Your task to perform on an android device: check out phone information Image 0: 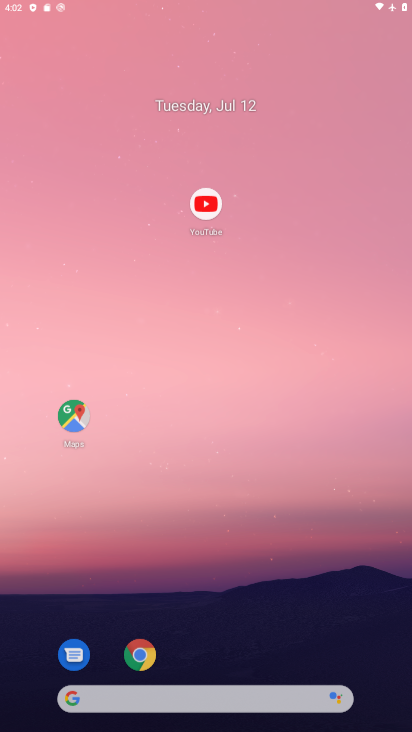
Step 0: click (146, 82)
Your task to perform on an android device: check out phone information Image 1: 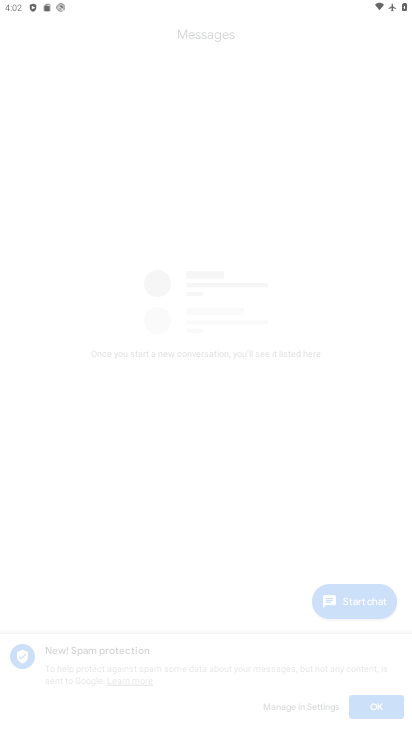
Step 1: drag from (190, 534) to (169, 131)
Your task to perform on an android device: check out phone information Image 2: 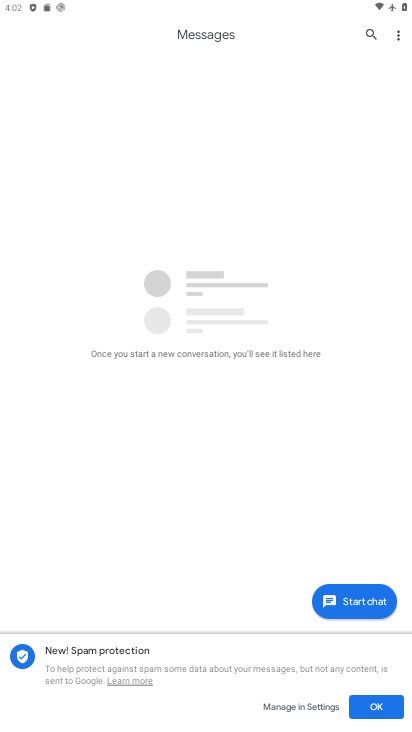
Step 2: press back button
Your task to perform on an android device: check out phone information Image 3: 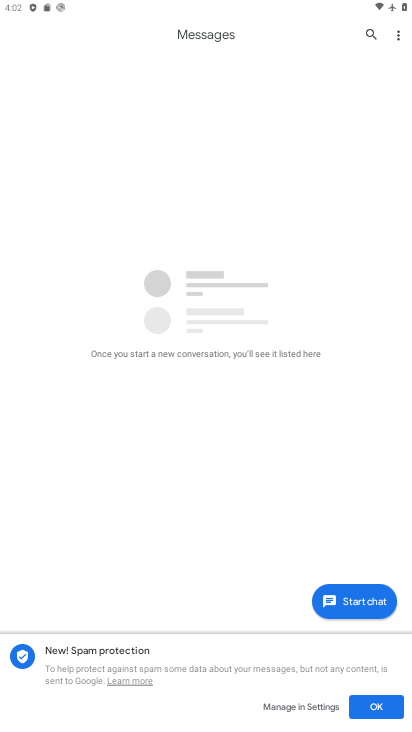
Step 3: press back button
Your task to perform on an android device: check out phone information Image 4: 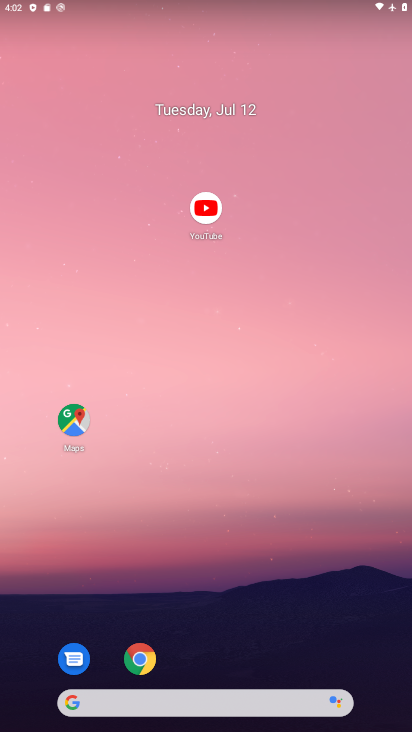
Step 4: drag from (255, 663) to (203, 69)
Your task to perform on an android device: check out phone information Image 5: 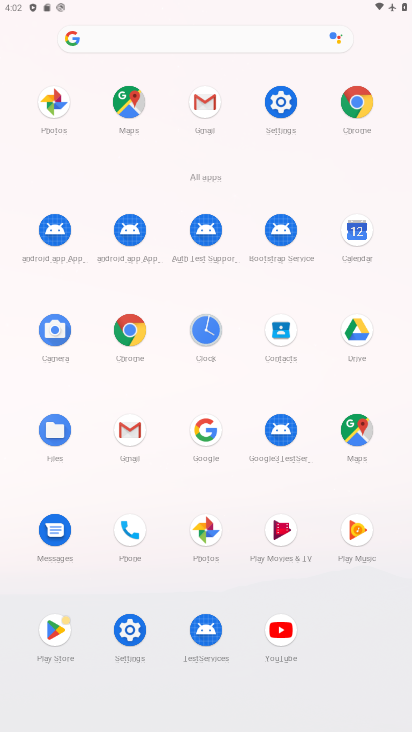
Step 5: click (288, 102)
Your task to perform on an android device: check out phone information Image 6: 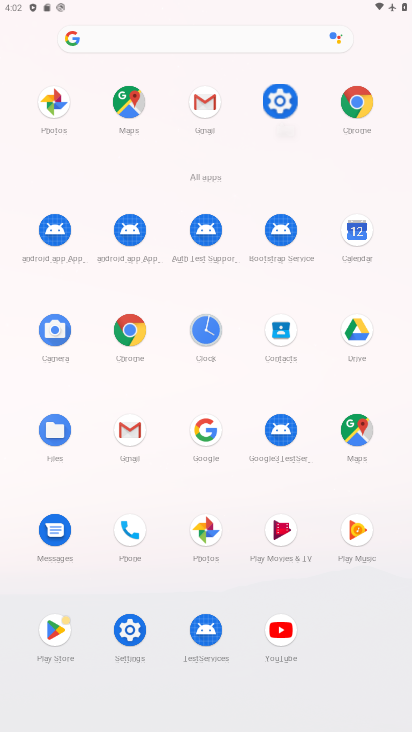
Step 6: click (288, 96)
Your task to perform on an android device: check out phone information Image 7: 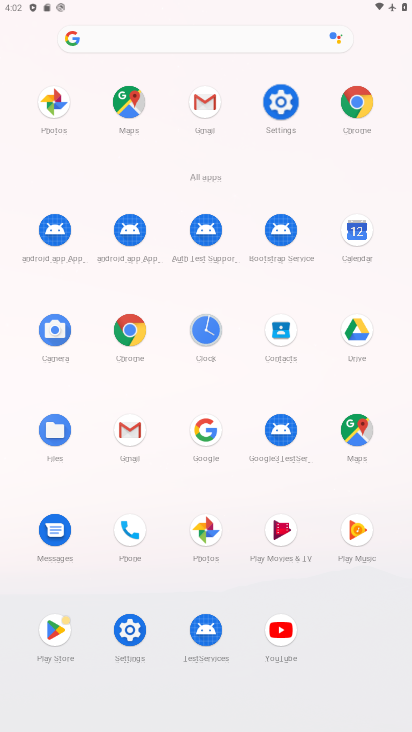
Step 7: click (288, 96)
Your task to perform on an android device: check out phone information Image 8: 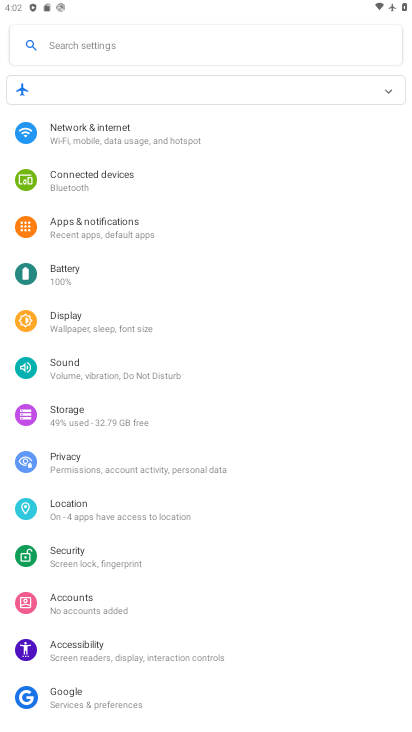
Step 8: click (292, 100)
Your task to perform on an android device: check out phone information Image 9: 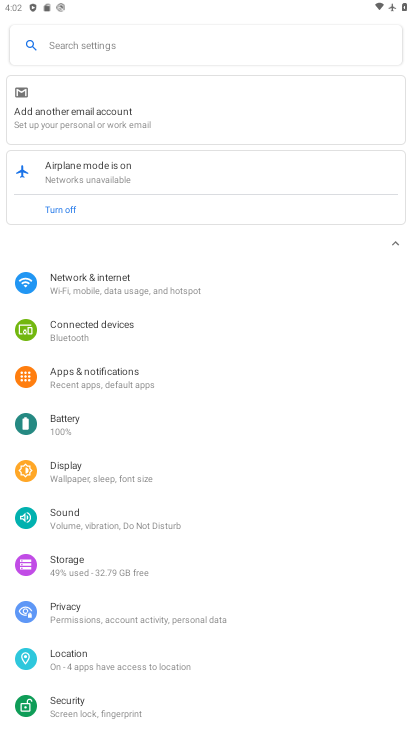
Step 9: click (81, 646)
Your task to perform on an android device: check out phone information Image 10: 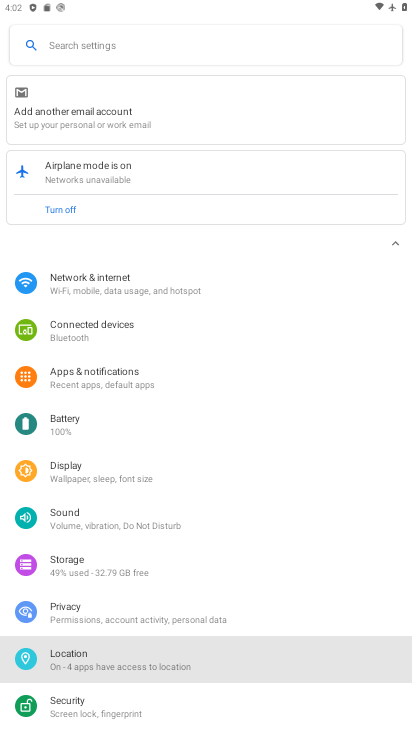
Step 10: click (81, 646)
Your task to perform on an android device: check out phone information Image 11: 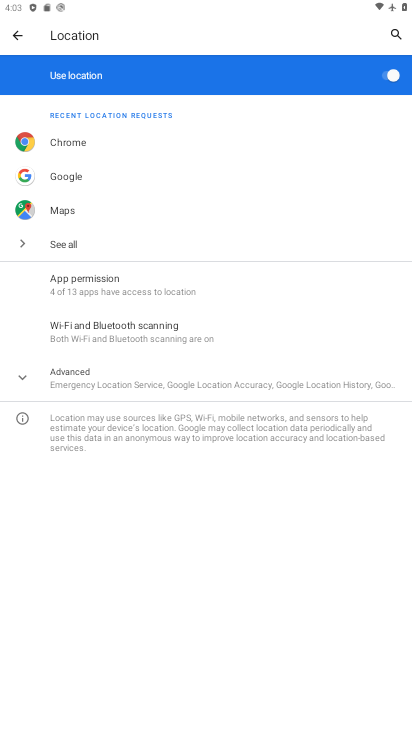
Step 11: click (90, 279)
Your task to perform on an android device: check out phone information Image 12: 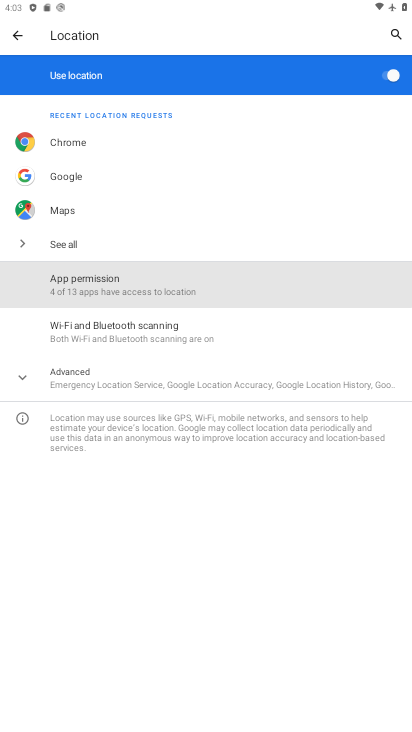
Step 12: click (91, 279)
Your task to perform on an android device: check out phone information Image 13: 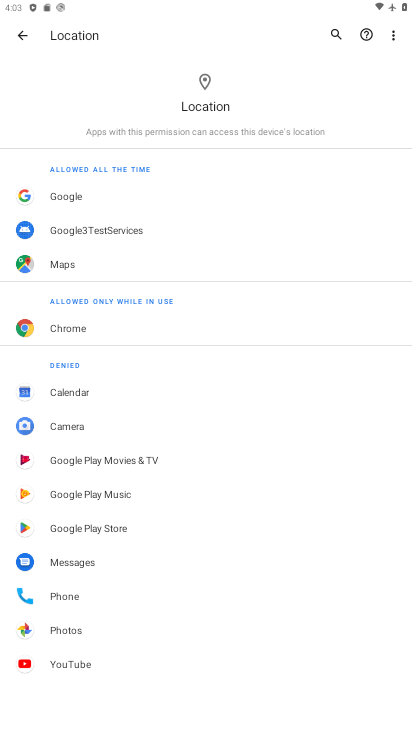
Step 13: task complete